Your task to perform on an android device: turn on showing notifications on the lock screen Image 0: 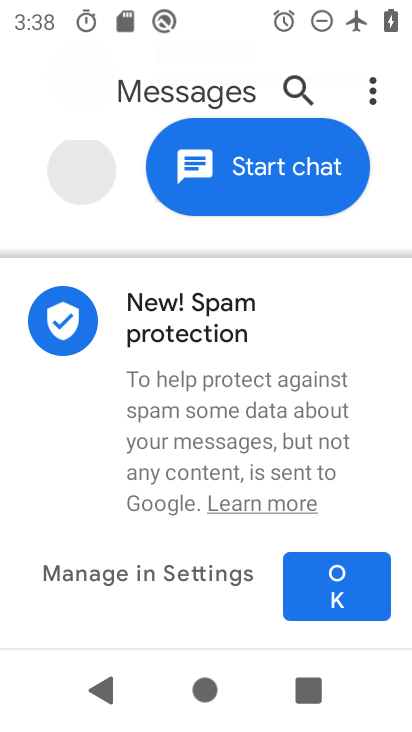
Step 0: press home button
Your task to perform on an android device: turn on showing notifications on the lock screen Image 1: 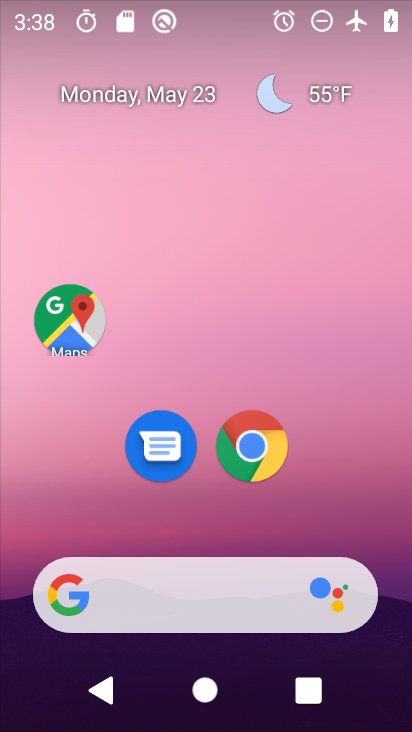
Step 1: drag from (207, 455) to (177, 248)
Your task to perform on an android device: turn on showing notifications on the lock screen Image 2: 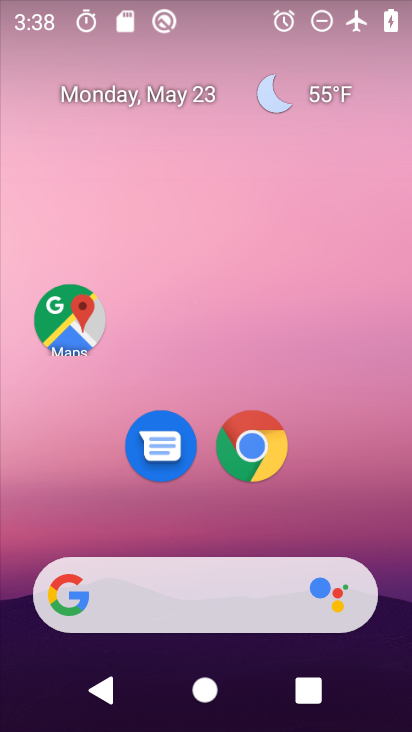
Step 2: drag from (194, 436) to (179, 136)
Your task to perform on an android device: turn on showing notifications on the lock screen Image 3: 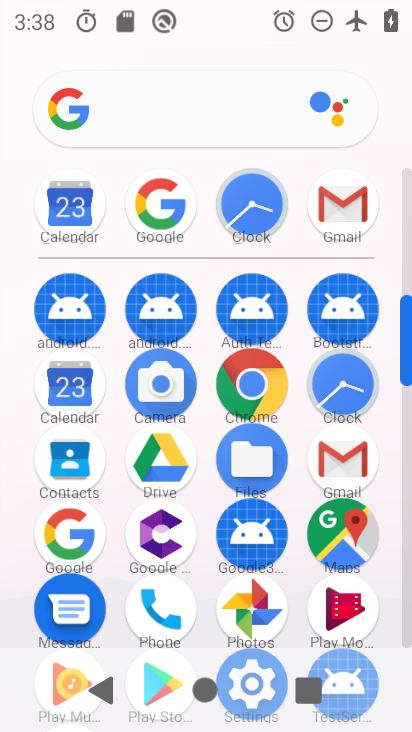
Step 3: drag from (202, 592) to (218, 209)
Your task to perform on an android device: turn on showing notifications on the lock screen Image 4: 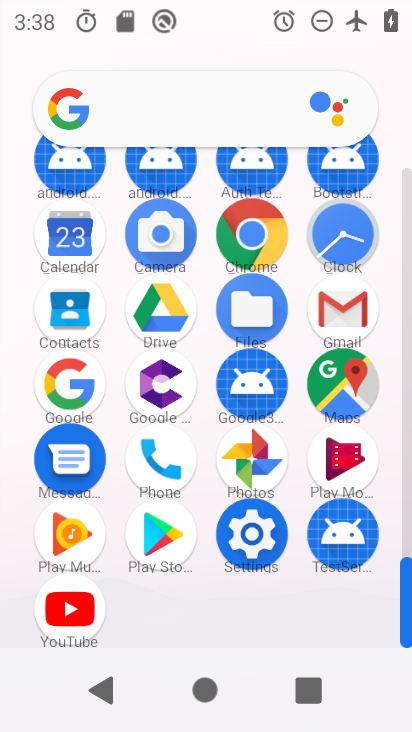
Step 4: click (255, 547)
Your task to perform on an android device: turn on showing notifications on the lock screen Image 5: 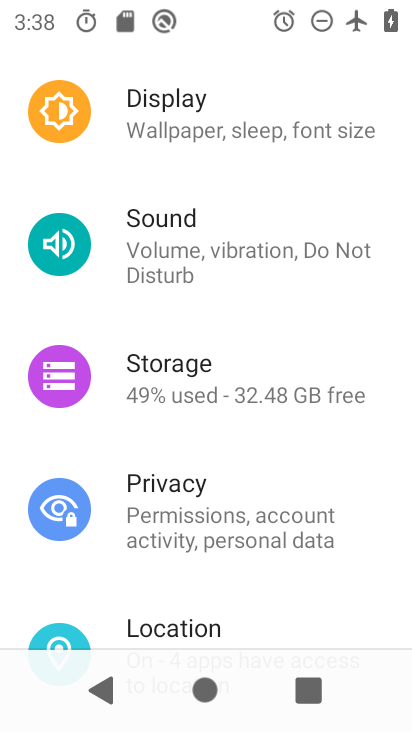
Step 5: drag from (233, 554) to (234, 460)
Your task to perform on an android device: turn on showing notifications on the lock screen Image 6: 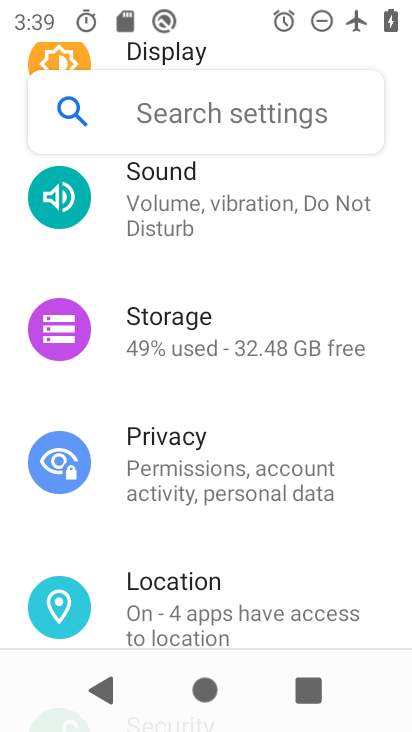
Step 6: drag from (234, 268) to (241, 498)
Your task to perform on an android device: turn on showing notifications on the lock screen Image 7: 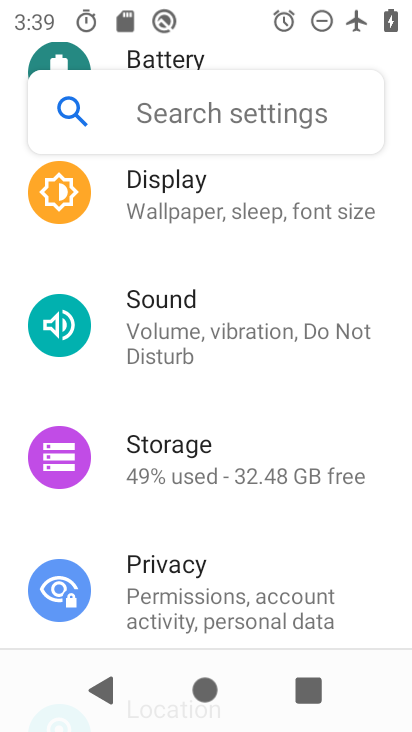
Step 7: drag from (231, 256) to (246, 517)
Your task to perform on an android device: turn on showing notifications on the lock screen Image 8: 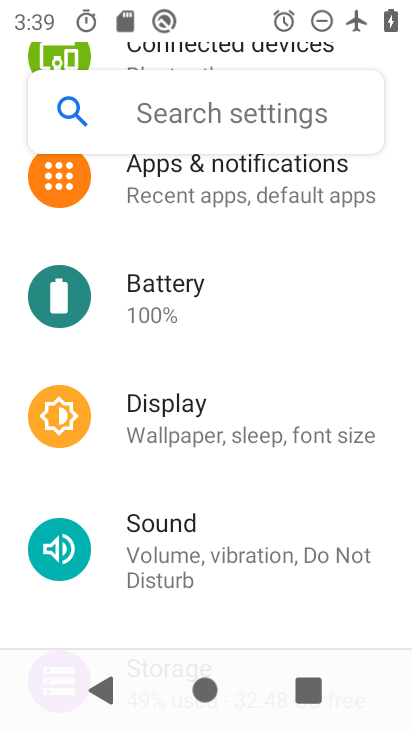
Step 8: click (235, 184)
Your task to perform on an android device: turn on showing notifications on the lock screen Image 9: 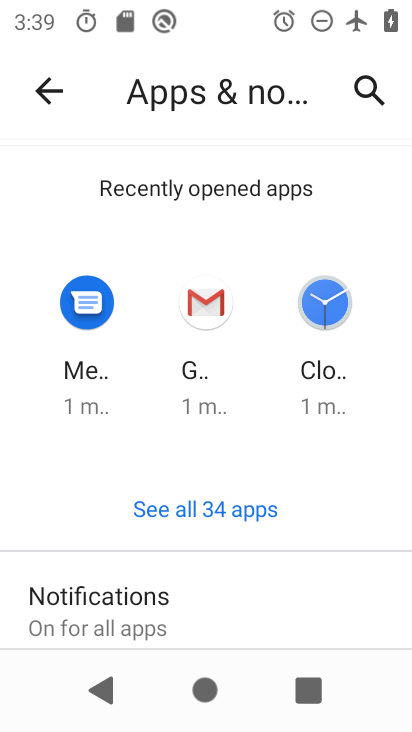
Step 9: drag from (237, 533) to (247, 293)
Your task to perform on an android device: turn on showing notifications on the lock screen Image 10: 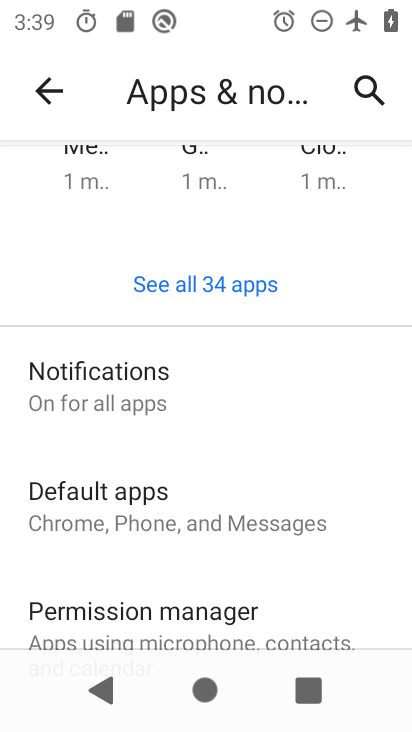
Step 10: click (151, 397)
Your task to perform on an android device: turn on showing notifications on the lock screen Image 11: 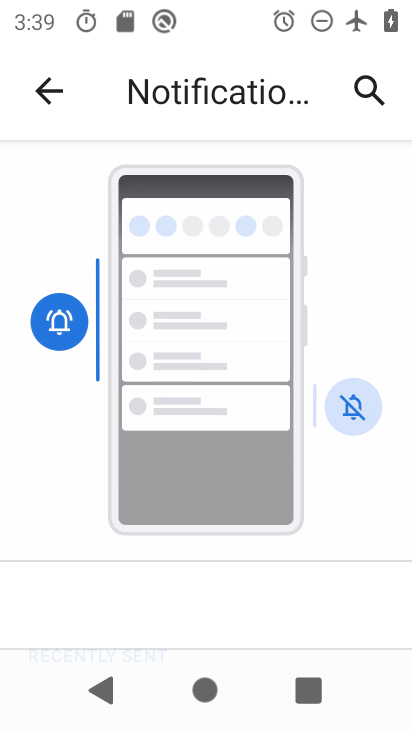
Step 11: drag from (253, 571) to (198, 257)
Your task to perform on an android device: turn on showing notifications on the lock screen Image 12: 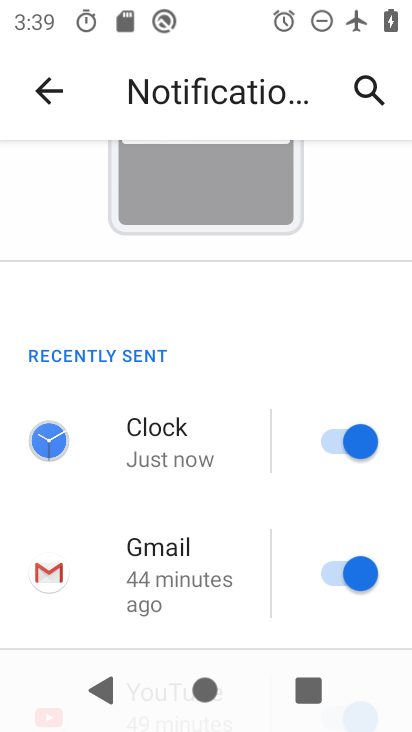
Step 12: drag from (200, 493) to (203, 258)
Your task to perform on an android device: turn on showing notifications on the lock screen Image 13: 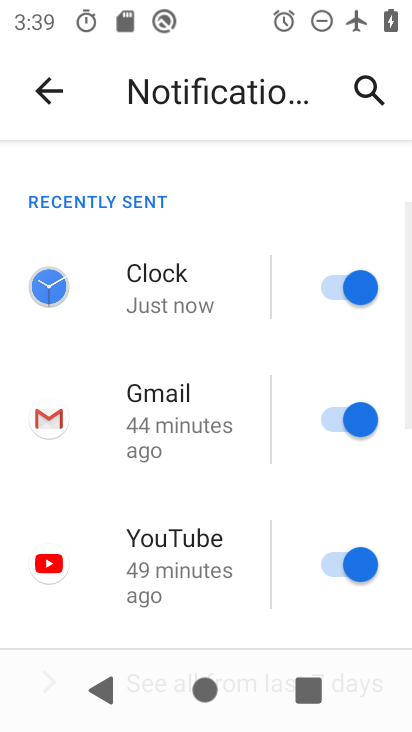
Step 13: click (235, 284)
Your task to perform on an android device: turn on showing notifications on the lock screen Image 14: 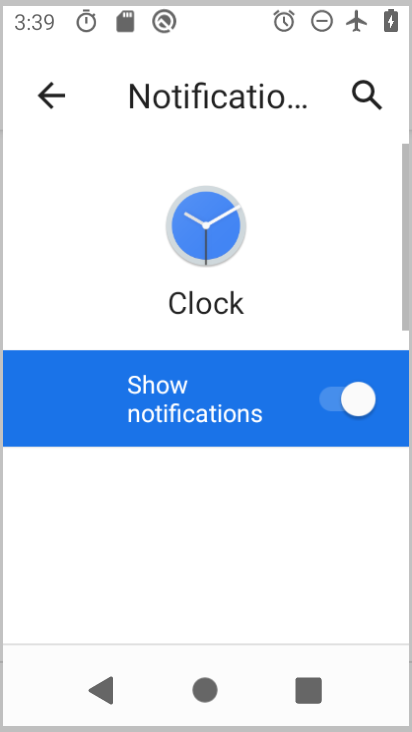
Step 14: drag from (235, 552) to (232, 302)
Your task to perform on an android device: turn on showing notifications on the lock screen Image 15: 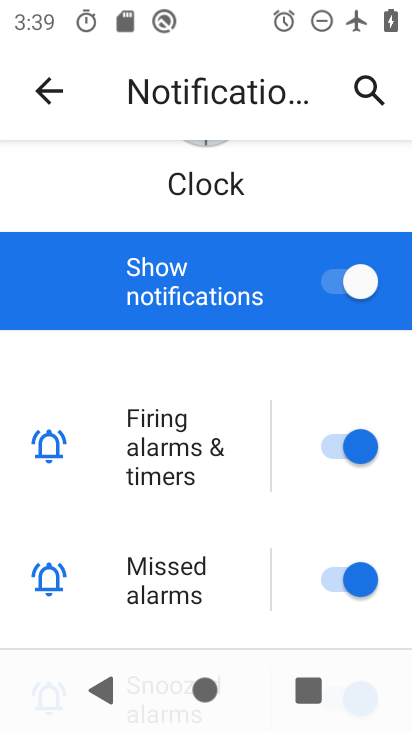
Step 15: drag from (234, 573) to (211, 357)
Your task to perform on an android device: turn on showing notifications on the lock screen Image 16: 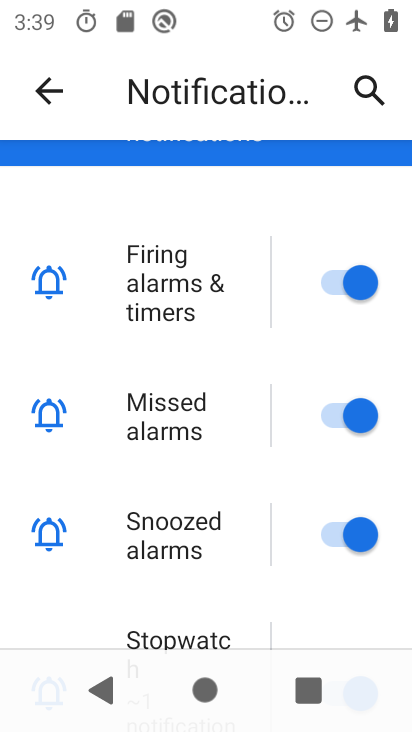
Step 16: drag from (188, 606) to (188, 408)
Your task to perform on an android device: turn on showing notifications on the lock screen Image 17: 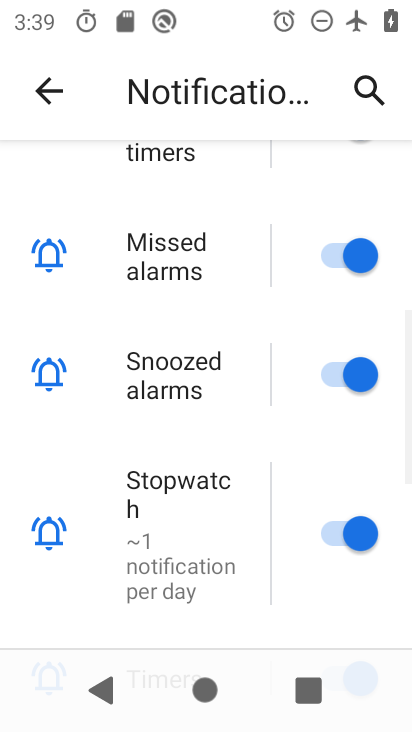
Step 17: drag from (192, 590) to (193, 334)
Your task to perform on an android device: turn on showing notifications on the lock screen Image 18: 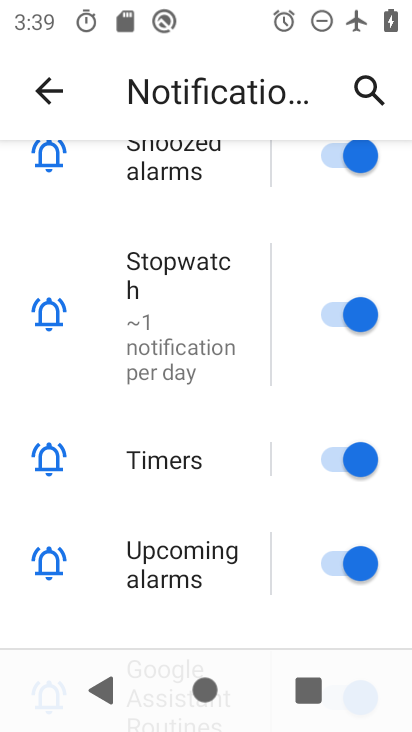
Step 18: drag from (223, 569) to (223, 299)
Your task to perform on an android device: turn on showing notifications on the lock screen Image 19: 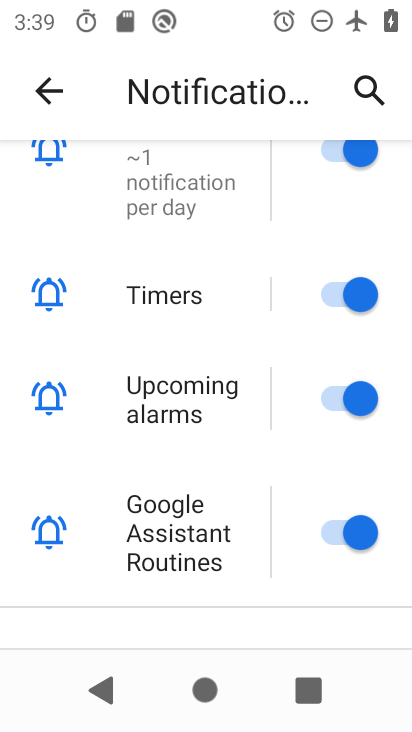
Step 19: drag from (258, 576) to (211, 264)
Your task to perform on an android device: turn on showing notifications on the lock screen Image 20: 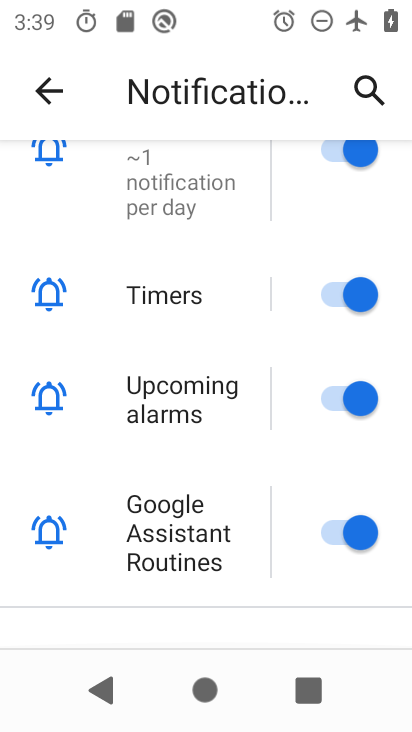
Step 20: drag from (227, 482) to (212, 255)
Your task to perform on an android device: turn on showing notifications on the lock screen Image 21: 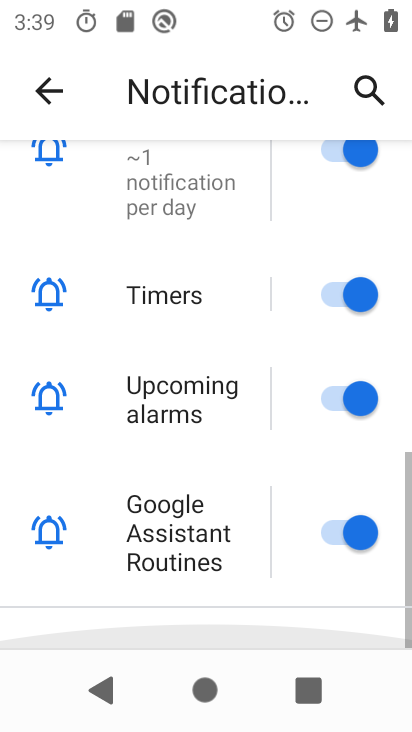
Step 21: drag from (211, 215) to (234, 558)
Your task to perform on an android device: turn on showing notifications on the lock screen Image 22: 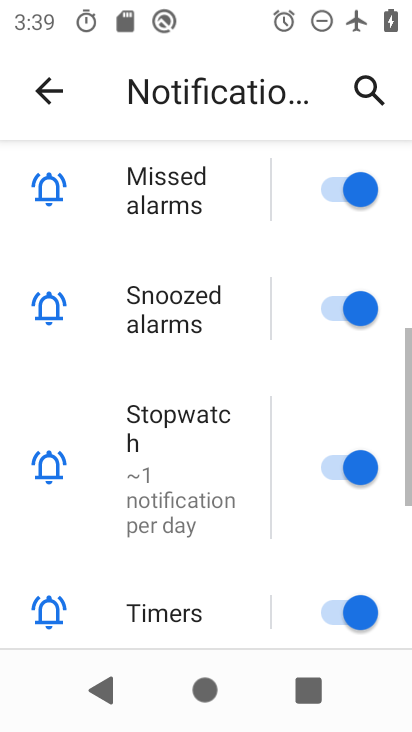
Step 22: drag from (223, 327) to (240, 571)
Your task to perform on an android device: turn on showing notifications on the lock screen Image 23: 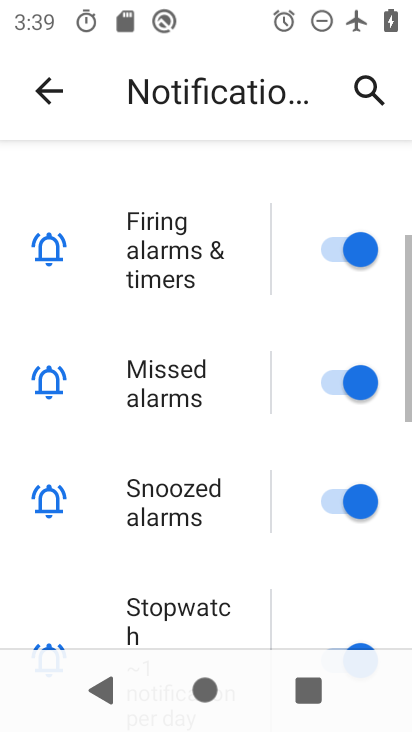
Step 23: drag from (202, 319) to (203, 515)
Your task to perform on an android device: turn on showing notifications on the lock screen Image 24: 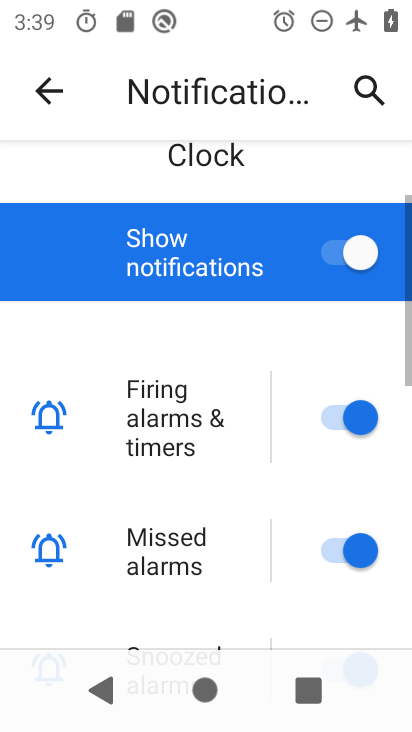
Step 24: drag from (181, 331) to (184, 502)
Your task to perform on an android device: turn on showing notifications on the lock screen Image 25: 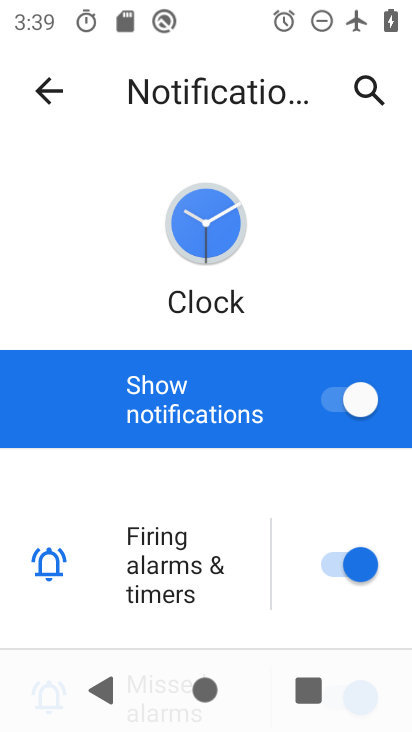
Step 25: click (51, 82)
Your task to perform on an android device: turn on showing notifications on the lock screen Image 26: 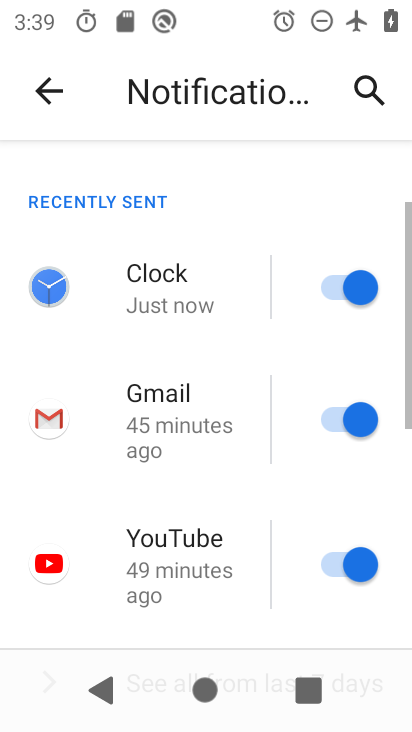
Step 26: drag from (212, 552) to (199, 230)
Your task to perform on an android device: turn on showing notifications on the lock screen Image 27: 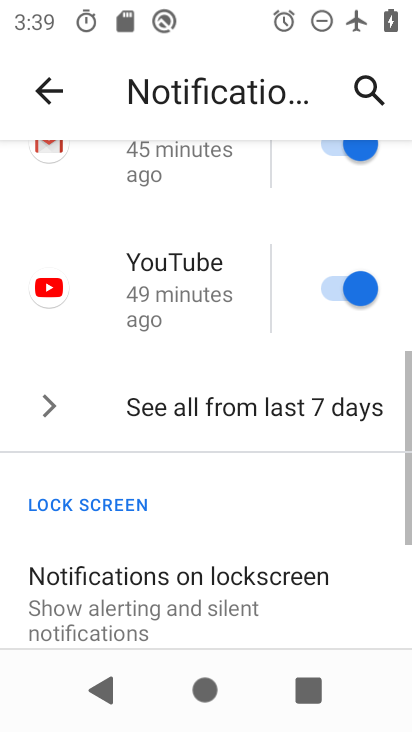
Step 27: drag from (198, 476) to (175, 217)
Your task to perform on an android device: turn on showing notifications on the lock screen Image 28: 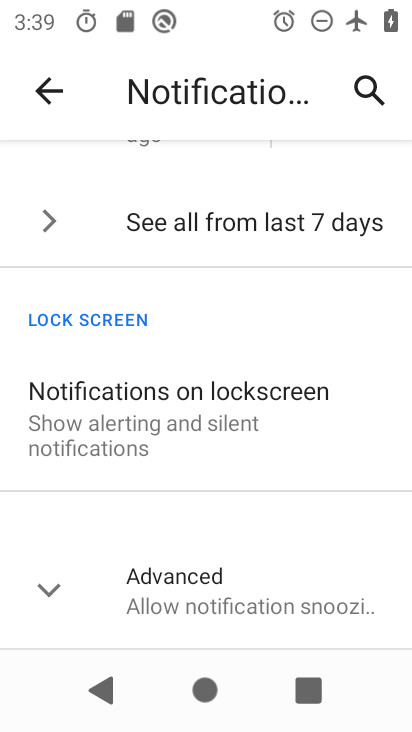
Step 28: click (177, 424)
Your task to perform on an android device: turn on showing notifications on the lock screen Image 29: 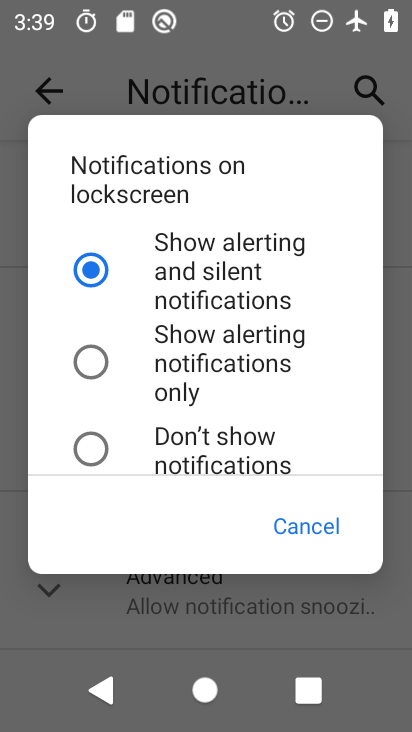
Step 29: task complete